Your task to perform on an android device: move a message to another label in the gmail app Image 0: 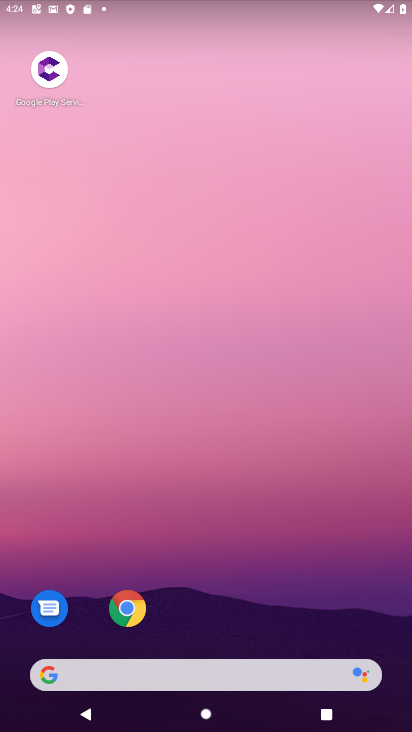
Step 0: drag from (268, 470) to (256, 401)
Your task to perform on an android device: move a message to another label in the gmail app Image 1: 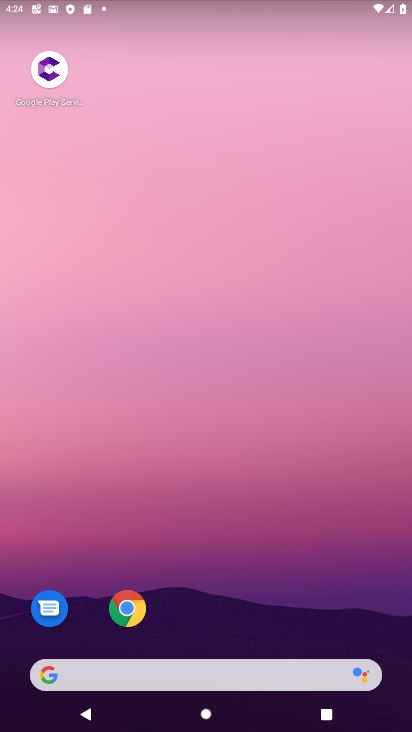
Step 1: drag from (190, 468) to (74, 22)
Your task to perform on an android device: move a message to another label in the gmail app Image 2: 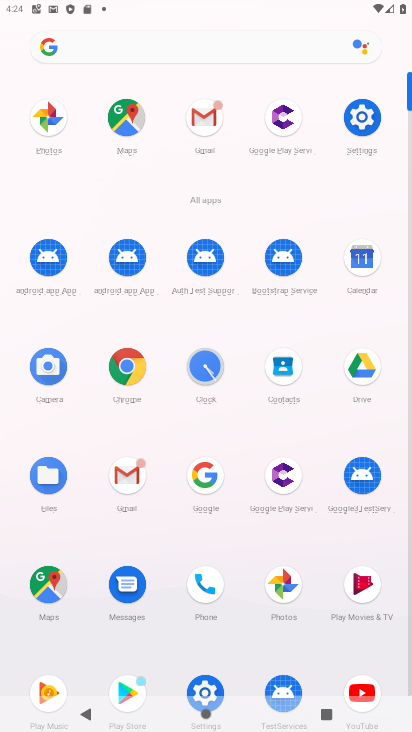
Step 2: click (115, 469)
Your task to perform on an android device: move a message to another label in the gmail app Image 3: 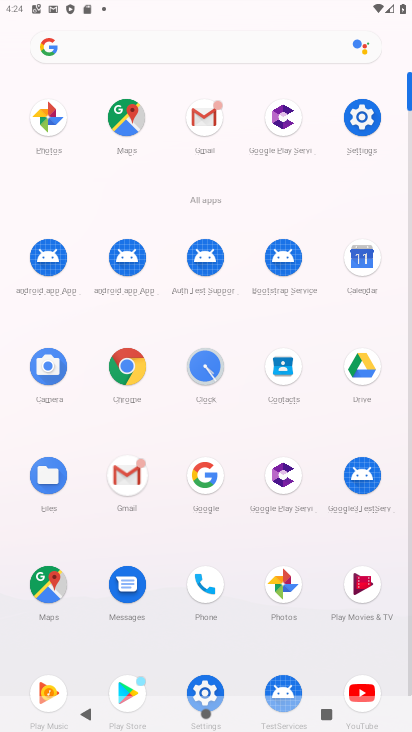
Step 3: click (120, 470)
Your task to perform on an android device: move a message to another label in the gmail app Image 4: 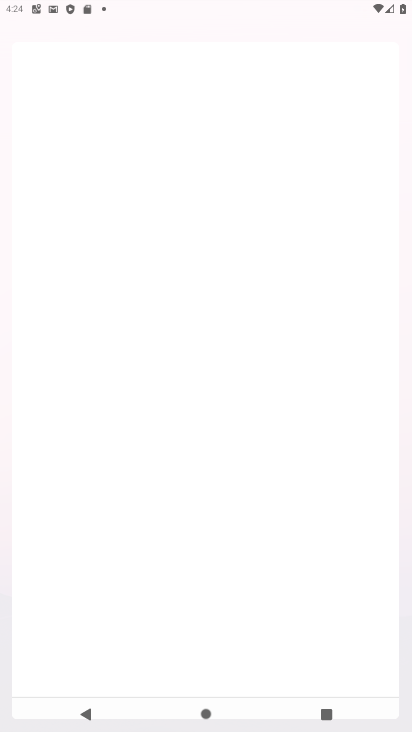
Step 4: click (121, 470)
Your task to perform on an android device: move a message to another label in the gmail app Image 5: 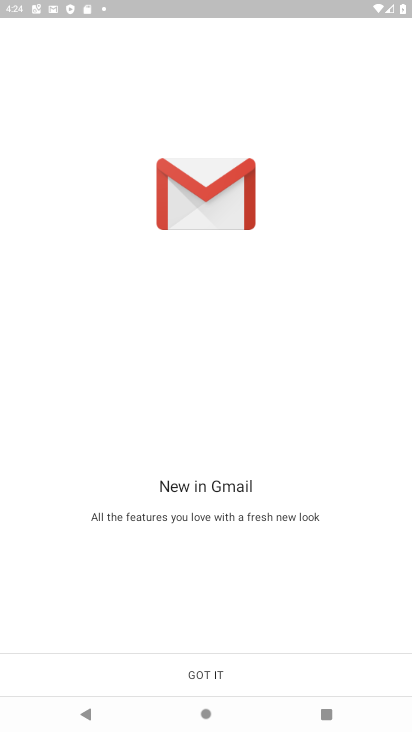
Step 5: click (198, 680)
Your task to perform on an android device: move a message to another label in the gmail app Image 6: 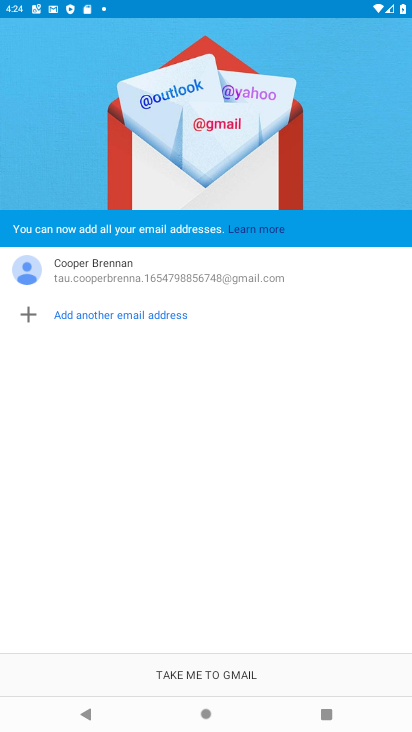
Step 6: click (220, 676)
Your task to perform on an android device: move a message to another label in the gmail app Image 7: 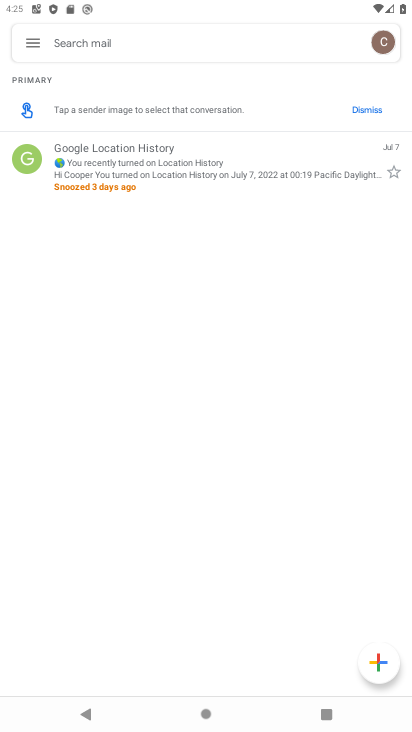
Step 7: press back button
Your task to perform on an android device: move a message to another label in the gmail app Image 8: 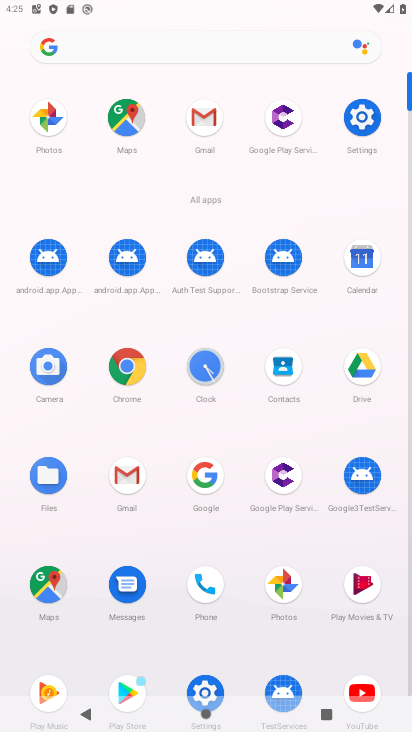
Step 8: click (131, 478)
Your task to perform on an android device: move a message to another label in the gmail app Image 9: 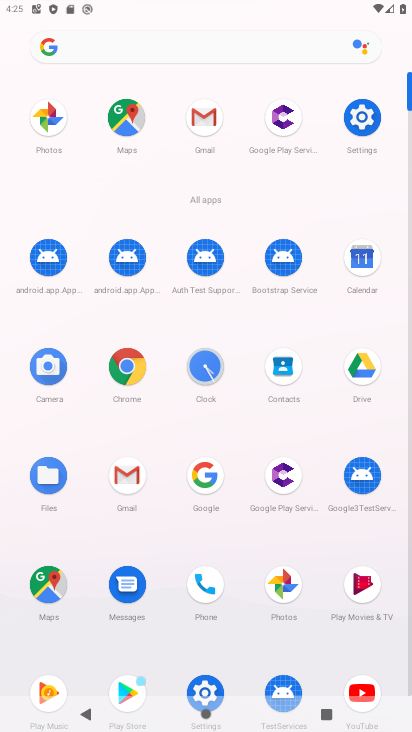
Step 9: click (131, 474)
Your task to perform on an android device: move a message to another label in the gmail app Image 10: 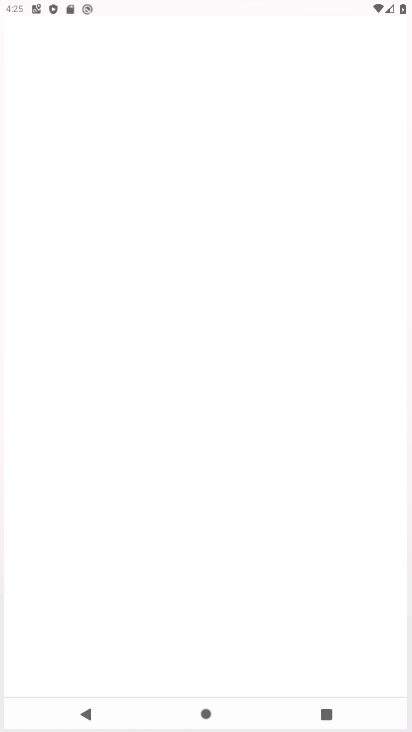
Step 10: click (136, 471)
Your task to perform on an android device: move a message to another label in the gmail app Image 11: 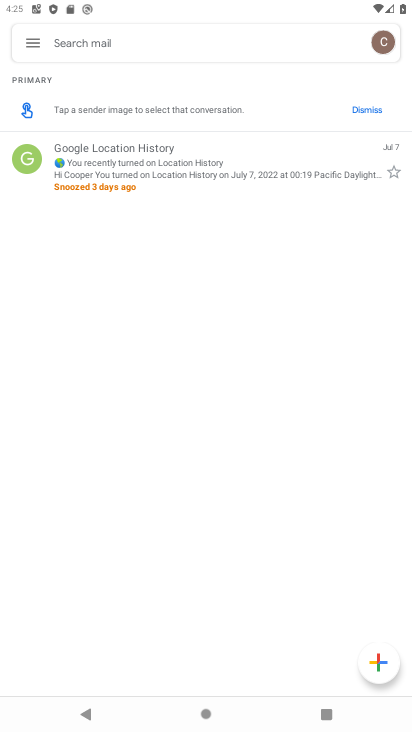
Step 11: click (244, 149)
Your task to perform on an android device: move a message to another label in the gmail app Image 12: 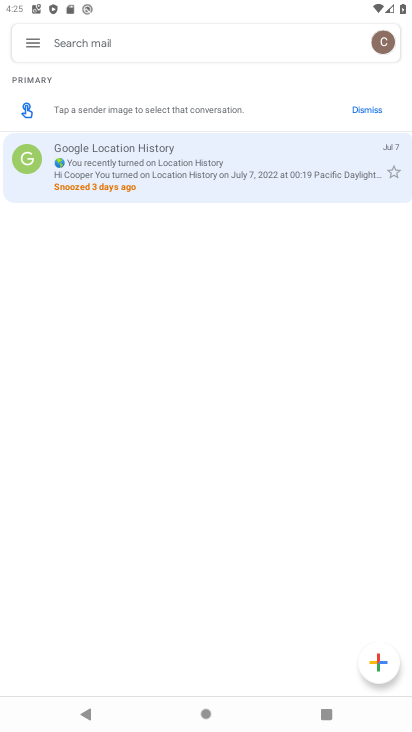
Step 12: click (368, 172)
Your task to perform on an android device: move a message to another label in the gmail app Image 13: 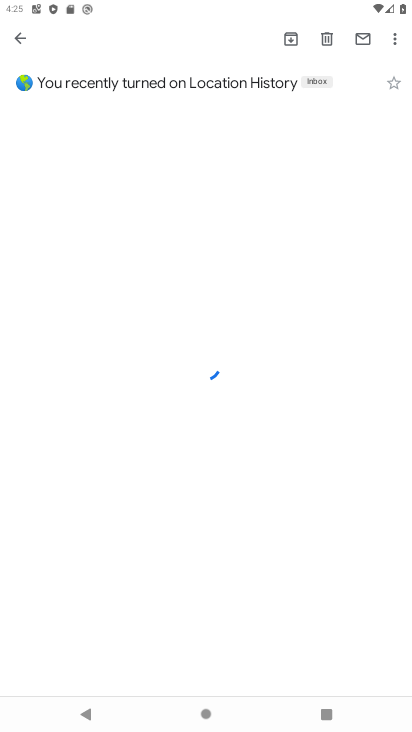
Step 13: click (387, 38)
Your task to perform on an android device: move a message to another label in the gmail app Image 14: 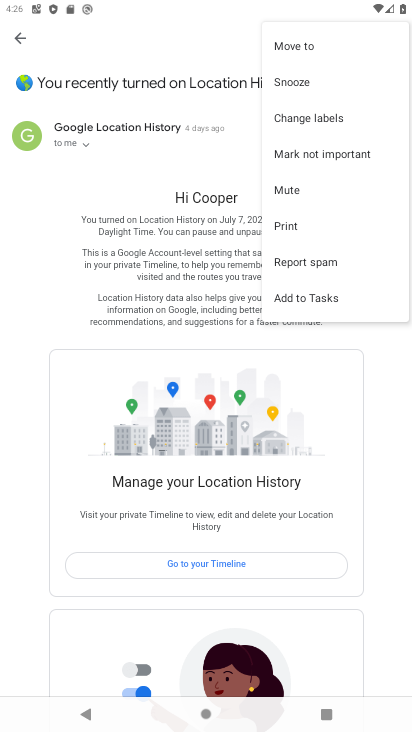
Step 14: click (298, 129)
Your task to perform on an android device: move a message to another label in the gmail app Image 15: 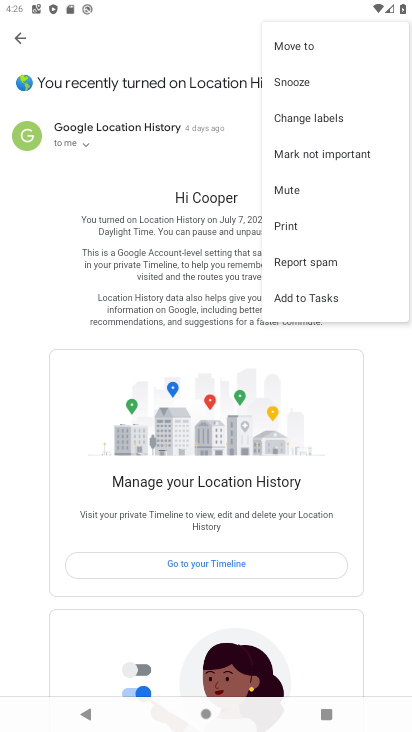
Step 15: click (295, 112)
Your task to perform on an android device: move a message to another label in the gmail app Image 16: 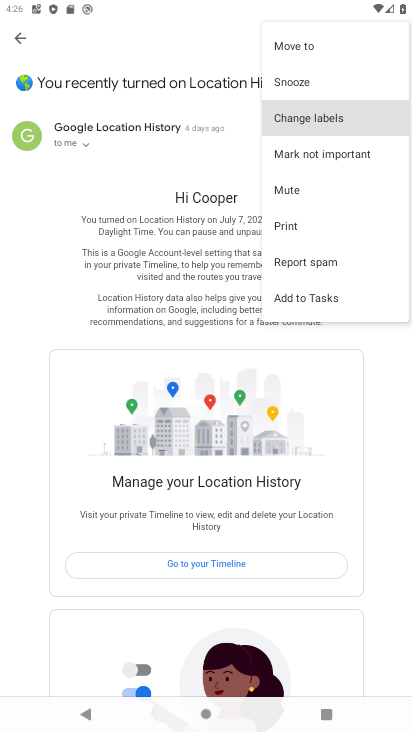
Step 16: click (301, 112)
Your task to perform on an android device: move a message to another label in the gmail app Image 17: 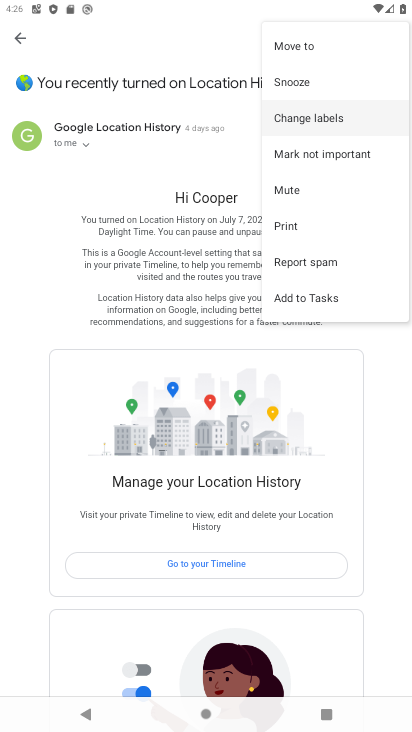
Step 17: click (301, 112)
Your task to perform on an android device: move a message to another label in the gmail app Image 18: 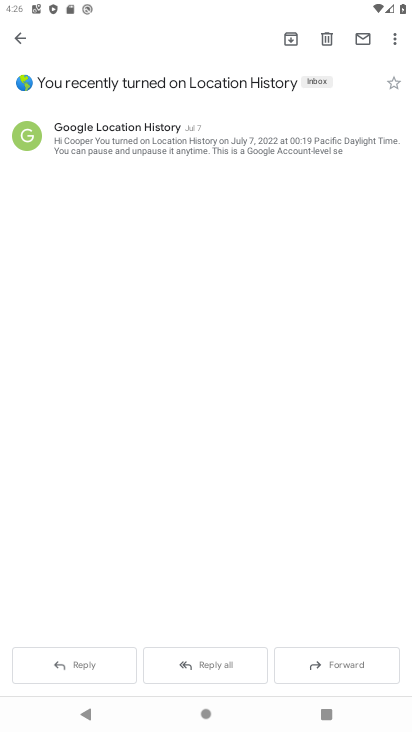
Step 18: click (181, 140)
Your task to perform on an android device: move a message to another label in the gmail app Image 19: 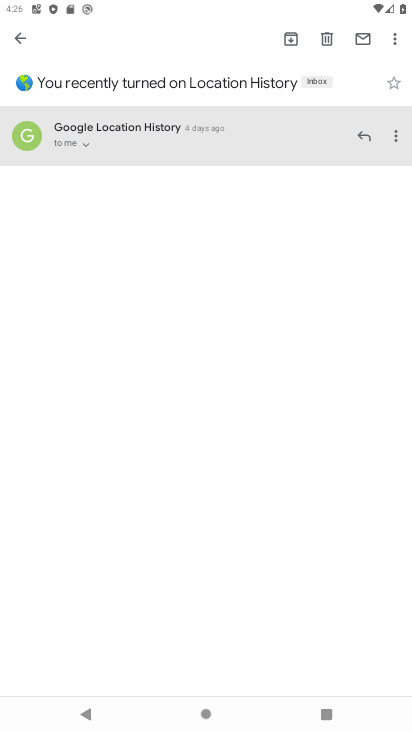
Step 19: click (180, 139)
Your task to perform on an android device: move a message to another label in the gmail app Image 20: 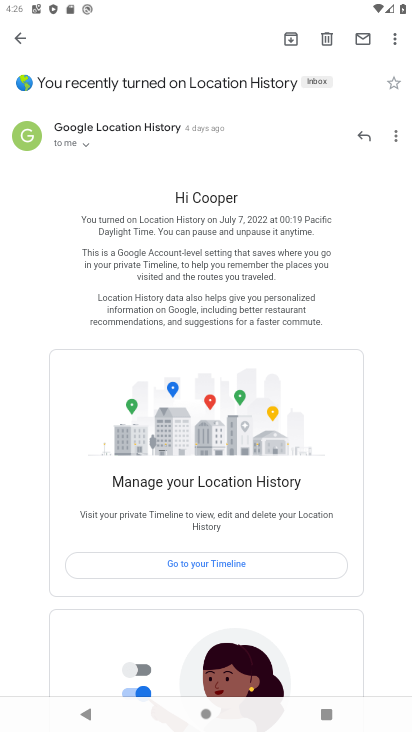
Step 20: click (180, 139)
Your task to perform on an android device: move a message to another label in the gmail app Image 21: 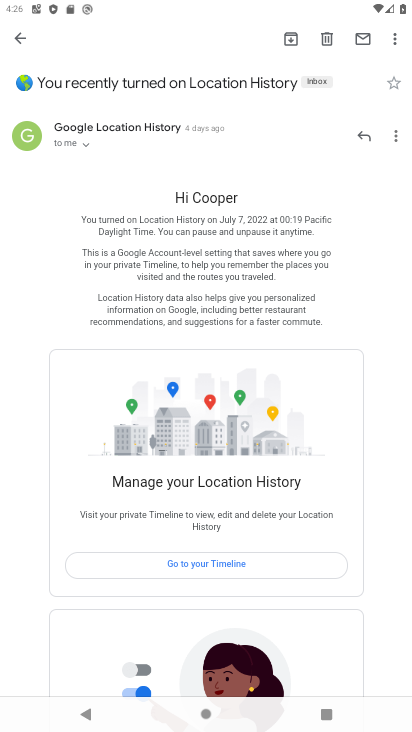
Step 21: drag from (396, 138) to (292, 221)
Your task to perform on an android device: move a message to another label in the gmail app Image 22: 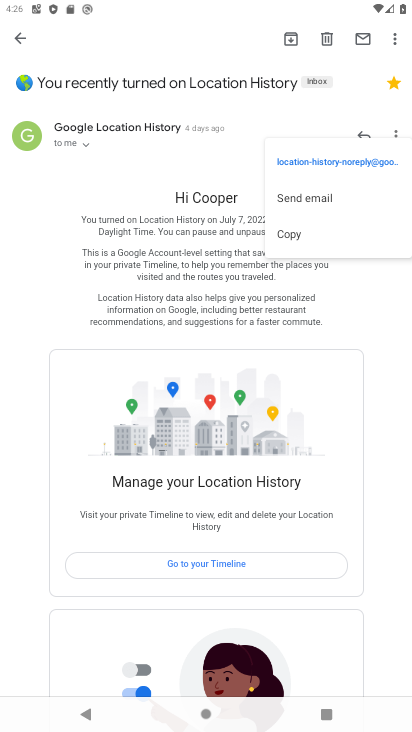
Step 22: click (387, 39)
Your task to perform on an android device: move a message to another label in the gmail app Image 23: 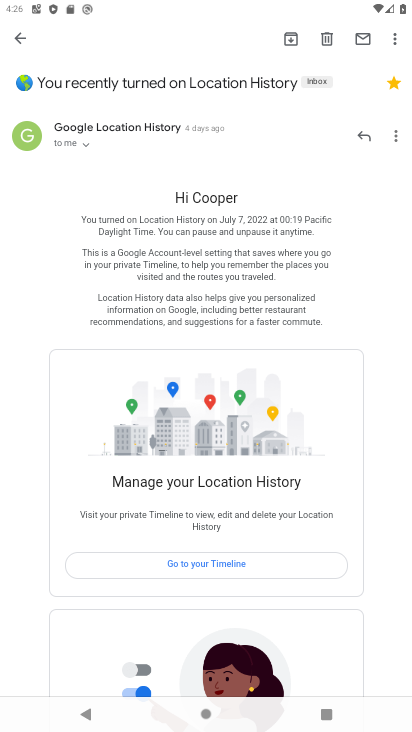
Step 23: click (387, 39)
Your task to perform on an android device: move a message to another label in the gmail app Image 24: 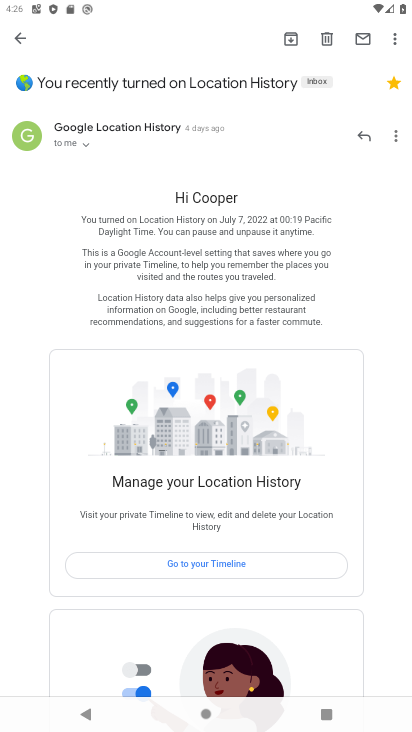
Step 24: click (387, 39)
Your task to perform on an android device: move a message to another label in the gmail app Image 25: 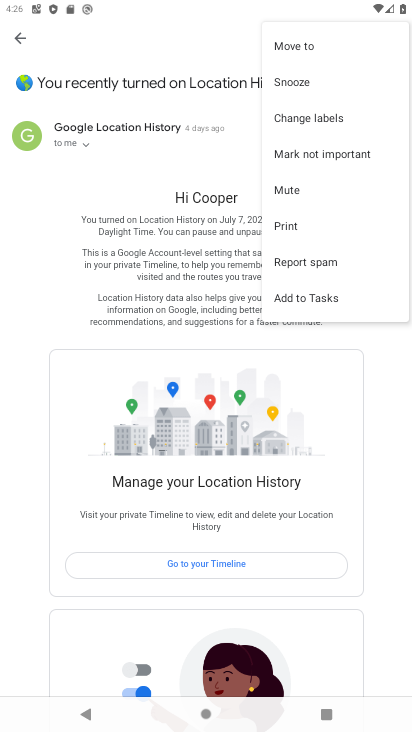
Step 25: click (301, 116)
Your task to perform on an android device: move a message to another label in the gmail app Image 26: 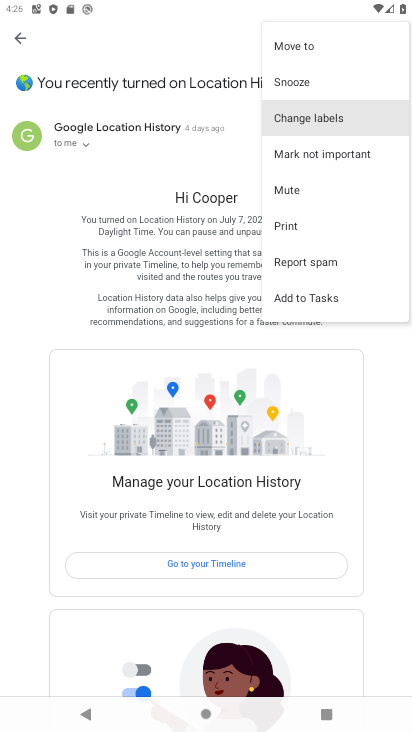
Step 26: click (301, 116)
Your task to perform on an android device: move a message to another label in the gmail app Image 27: 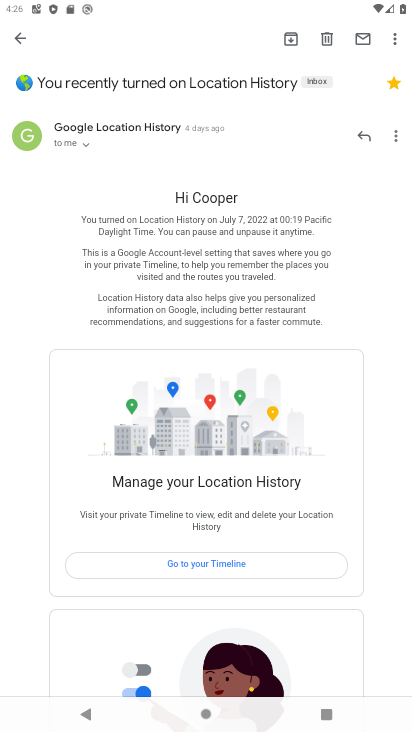
Step 27: task complete